Your task to perform on an android device: turn vacation reply on in the gmail app Image 0: 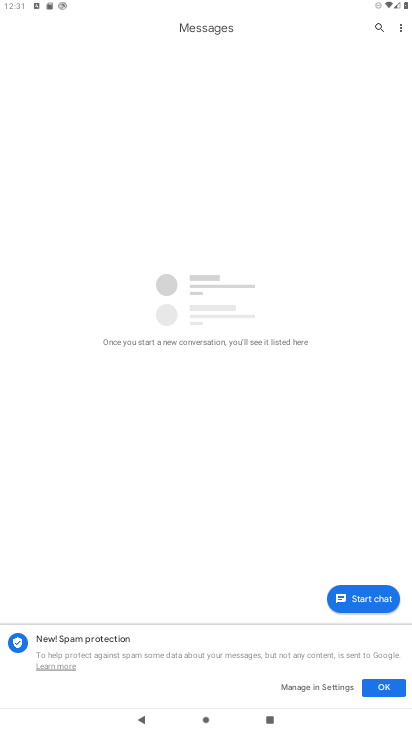
Step 0: press home button
Your task to perform on an android device: turn vacation reply on in the gmail app Image 1: 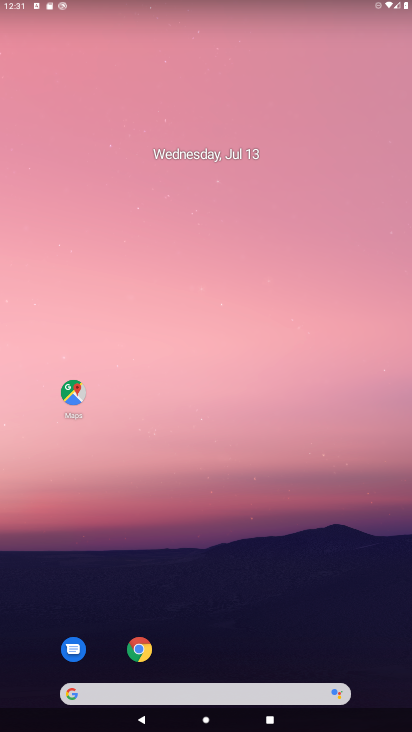
Step 1: drag from (409, 691) to (357, 152)
Your task to perform on an android device: turn vacation reply on in the gmail app Image 2: 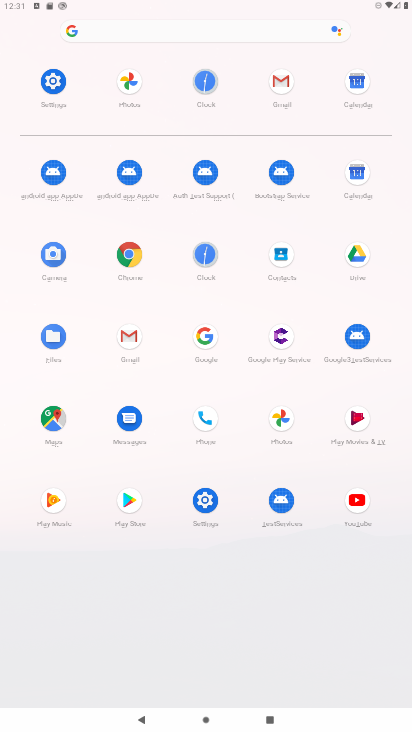
Step 2: click (126, 335)
Your task to perform on an android device: turn vacation reply on in the gmail app Image 3: 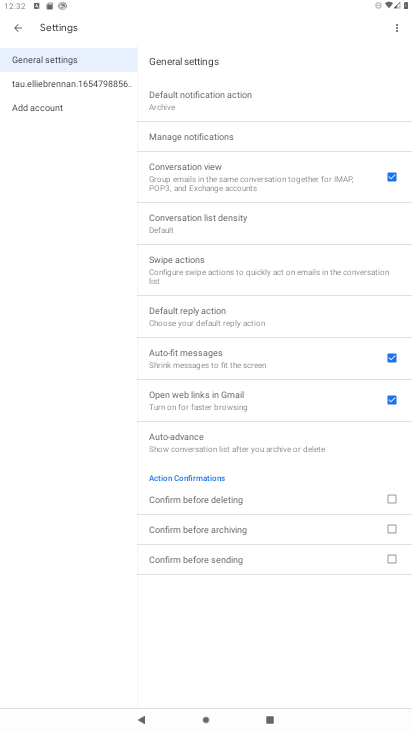
Step 3: click (67, 82)
Your task to perform on an android device: turn vacation reply on in the gmail app Image 4: 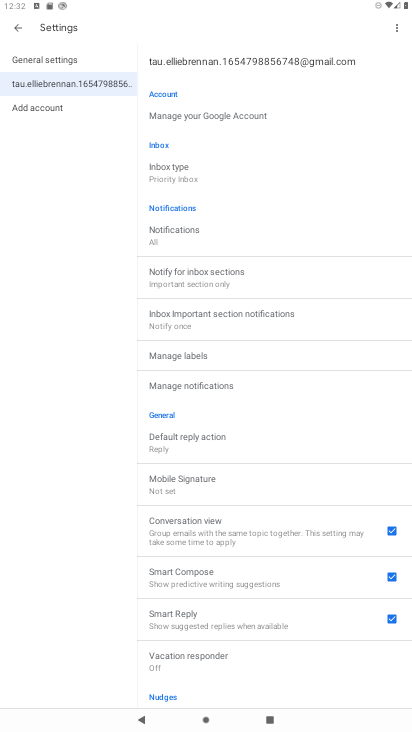
Step 4: click (210, 659)
Your task to perform on an android device: turn vacation reply on in the gmail app Image 5: 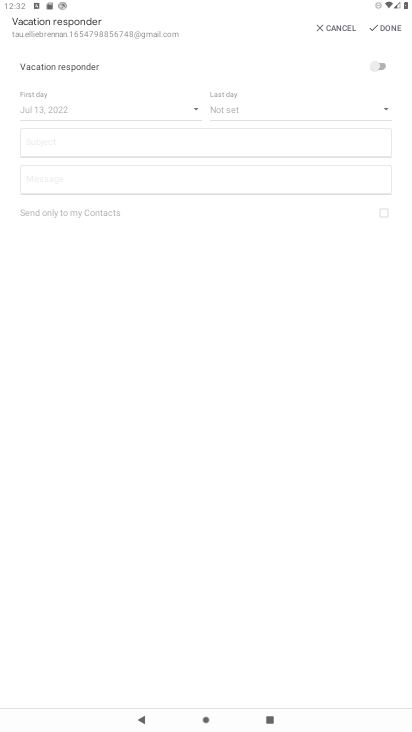
Step 5: click (382, 65)
Your task to perform on an android device: turn vacation reply on in the gmail app Image 6: 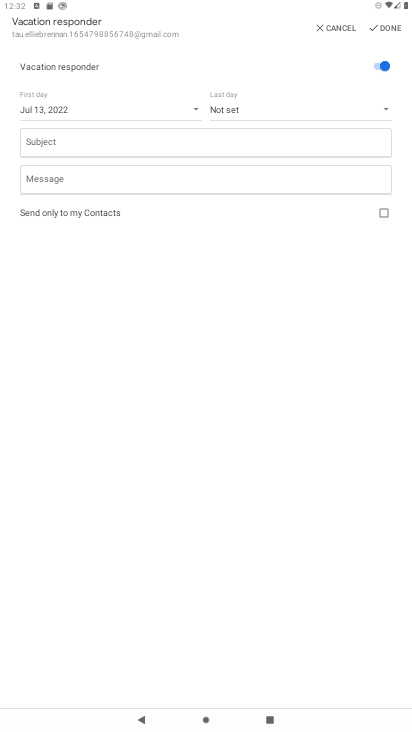
Step 6: click (388, 25)
Your task to perform on an android device: turn vacation reply on in the gmail app Image 7: 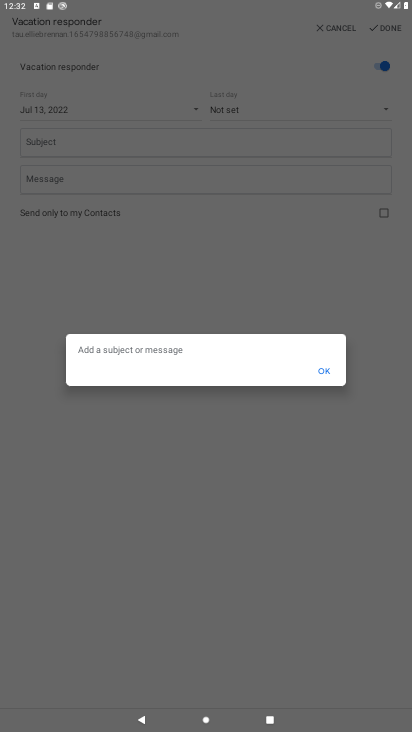
Step 7: click (322, 370)
Your task to perform on an android device: turn vacation reply on in the gmail app Image 8: 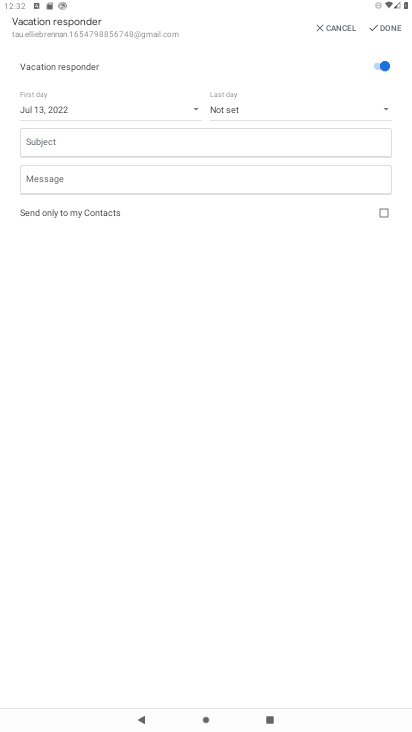
Step 8: task complete